Your task to perform on an android device: turn off smart reply in the gmail app Image 0: 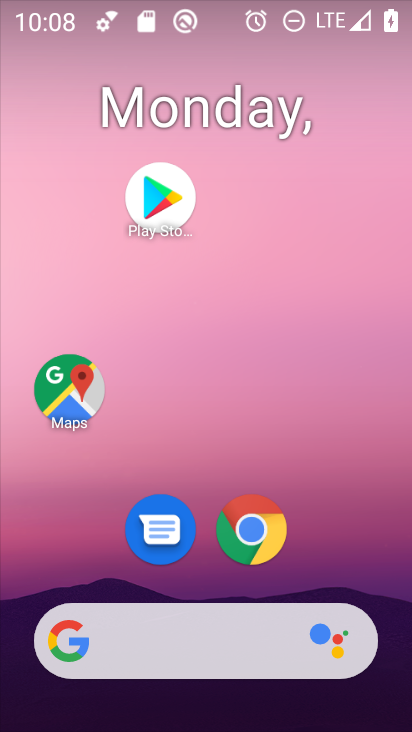
Step 0: drag from (317, 529) to (200, 74)
Your task to perform on an android device: turn off smart reply in the gmail app Image 1: 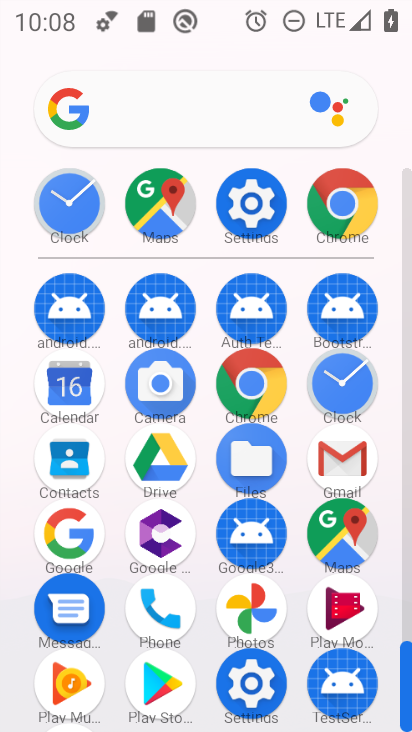
Step 1: click (332, 458)
Your task to perform on an android device: turn off smart reply in the gmail app Image 2: 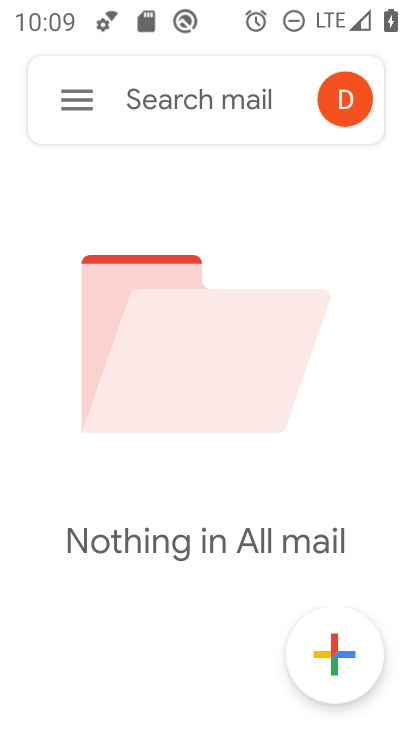
Step 2: click (84, 97)
Your task to perform on an android device: turn off smart reply in the gmail app Image 3: 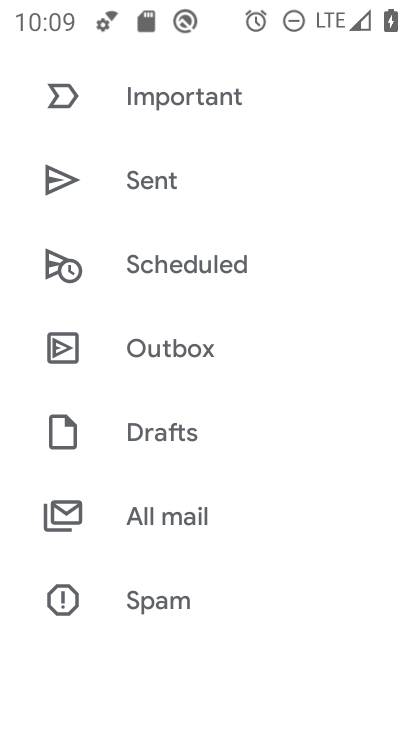
Step 3: drag from (205, 556) to (149, 165)
Your task to perform on an android device: turn off smart reply in the gmail app Image 4: 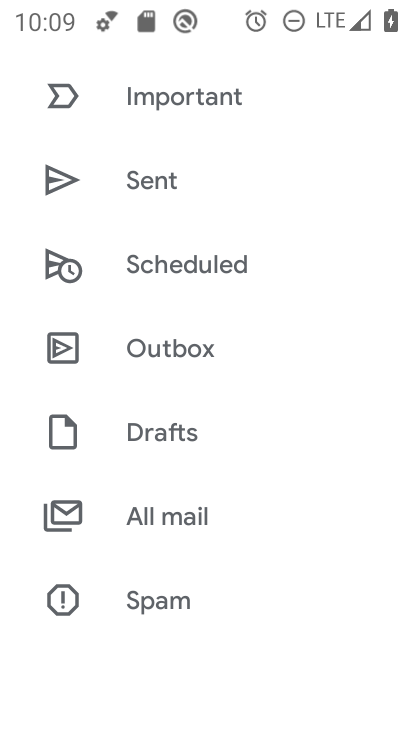
Step 4: drag from (243, 548) to (236, 178)
Your task to perform on an android device: turn off smart reply in the gmail app Image 5: 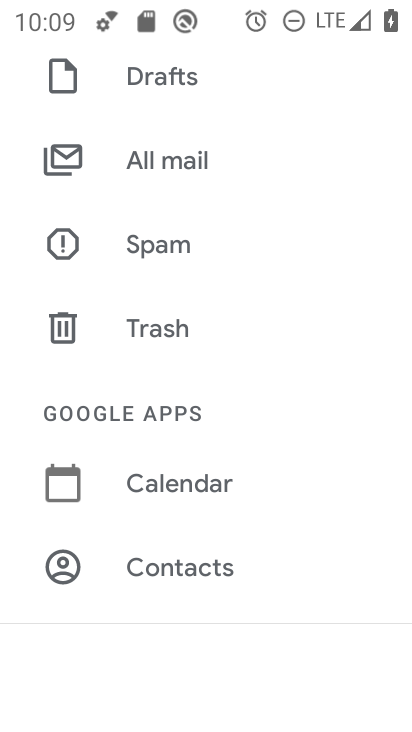
Step 5: drag from (260, 486) to (193, 155)
Your task to perform on an android device: turn off smart reply in the gmail app Image 6: 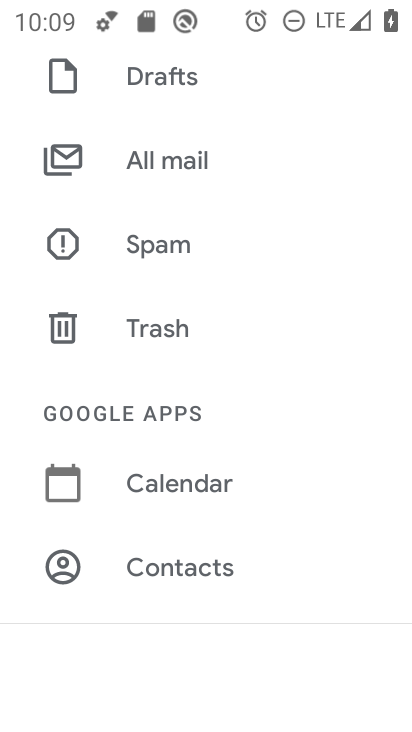
Step 6: drag from (243, 496) to (287, 150)
Your task to perform on an android device: turn off smart reply in the gmail app Image 7: 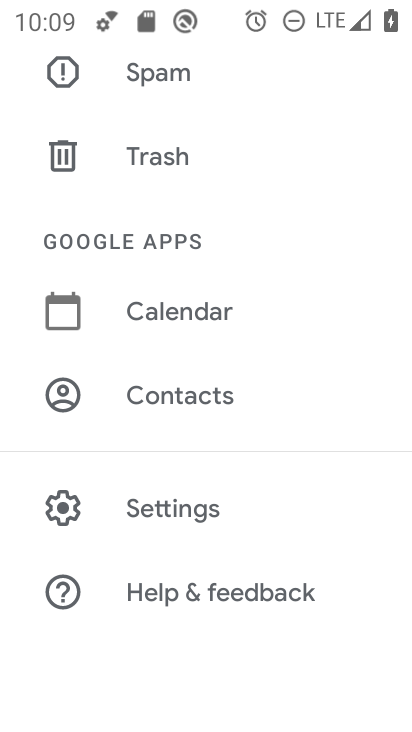
Step 7: click (181, 505)
Your task to perform on an android device: turn off smart reply in the gmail app Image 8: 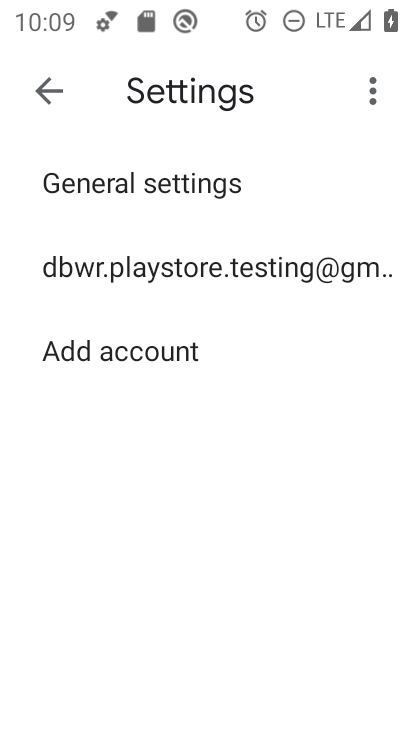
Step 8: click (138, 271)
Your task to perform on an android device: turn off smart reply in the gmail app Image 9: 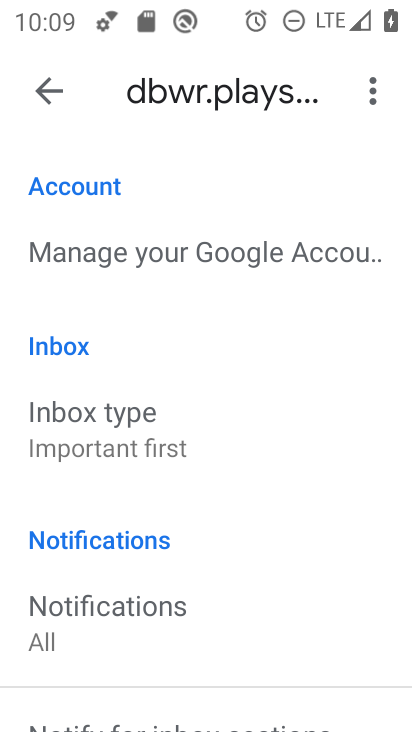
Step 9: task complete